Your task to perform on an android device: turn on wifi Image 0: 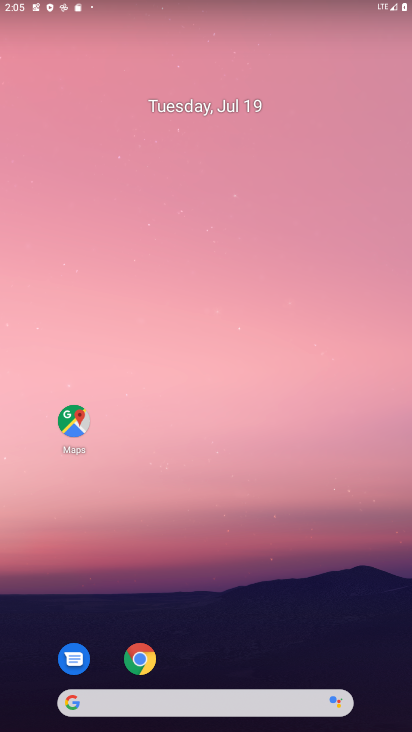
Step 0: press home button
Your task to perform on an android device: turn on wifi Image 1: 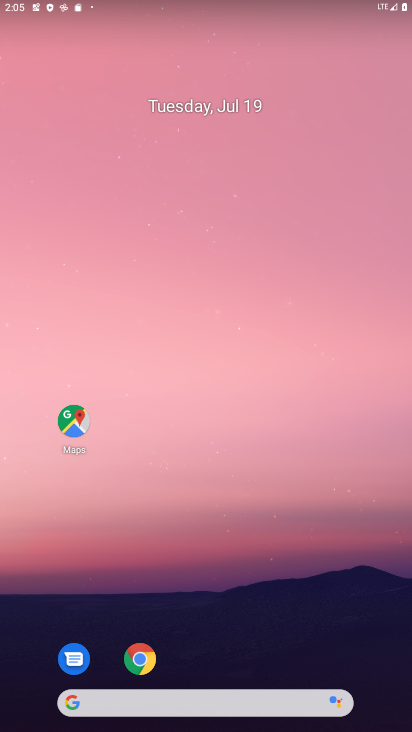
Step 1: drag from (339, 3) to (376, 573)
Your task to perform on an android device: turn on wifi Image 2: 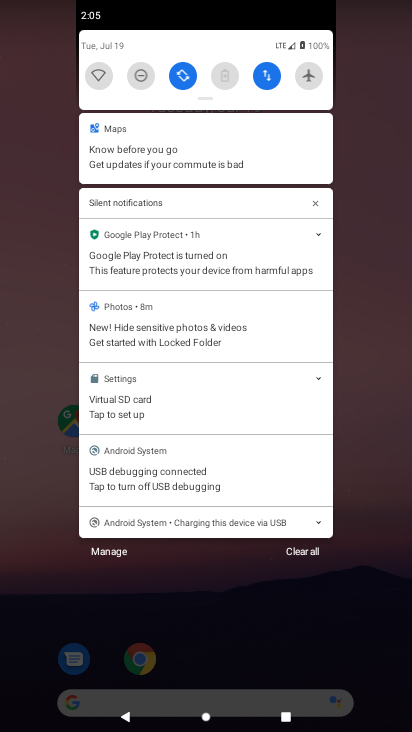
Step 2: click (90, 82)
Your task to perform on an android device: turn on wifi Image 3: 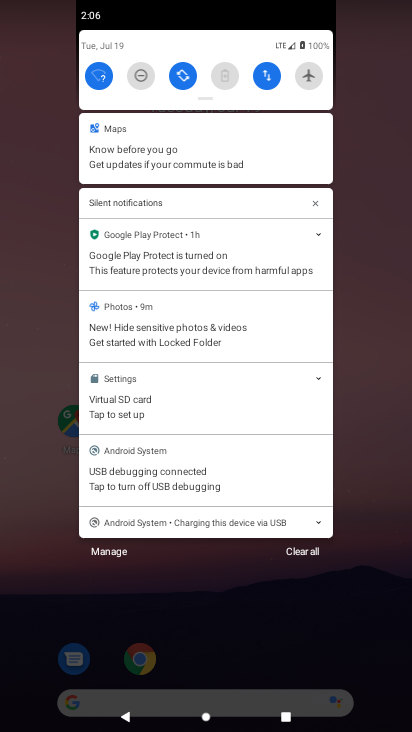
Step 3: task complete